Your task to perform on an android device: Open Youtube and go to the subscriptions tab Image 0: 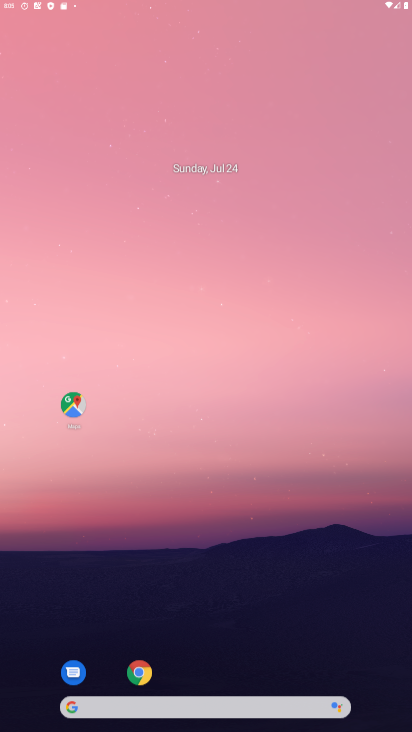
Step 0: click (241, 184)
Your task to perform on an android device: Open Youtube and go to the subscriptions tab Image 1: 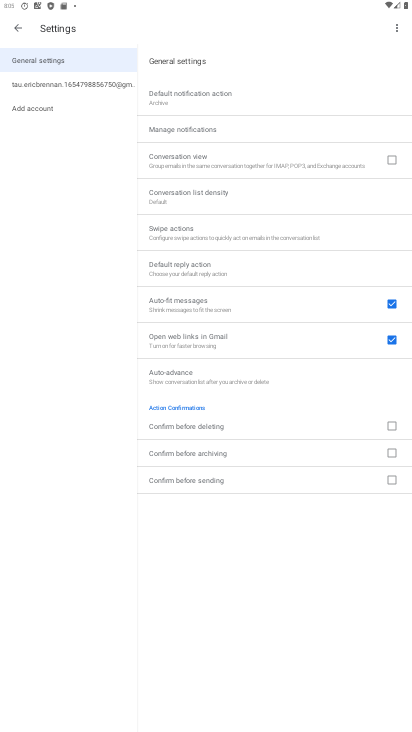
Step 1: drag from (188, 625) to (193, 118)
Your task to perform on an android device: Open Youtube and go to the subscriptions tab Image 2: 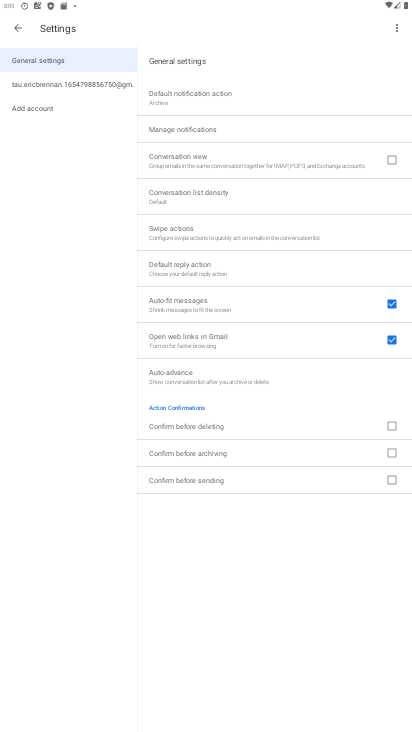
Step 2: press home button
Your task to perform on an android device: Open Youtube and go to the subscriptions tab Image 3: 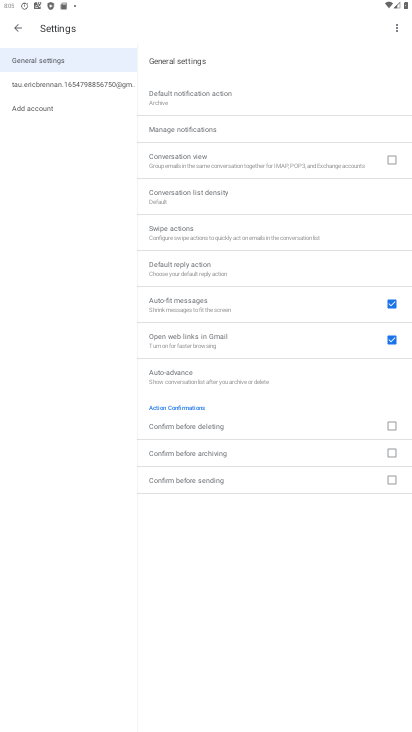
Step 3: press home button
Your task to perform on an android device: Open Youtube and go to the subscriptions tab Image 4: 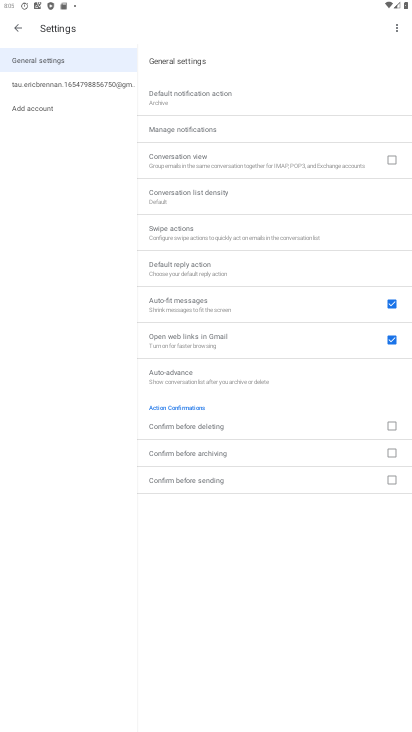
Step 4: drag from (190, 436) to (190, 350)
Your task to perform on an android device: Open Youtube and go to the subscriptions tab Image 5: 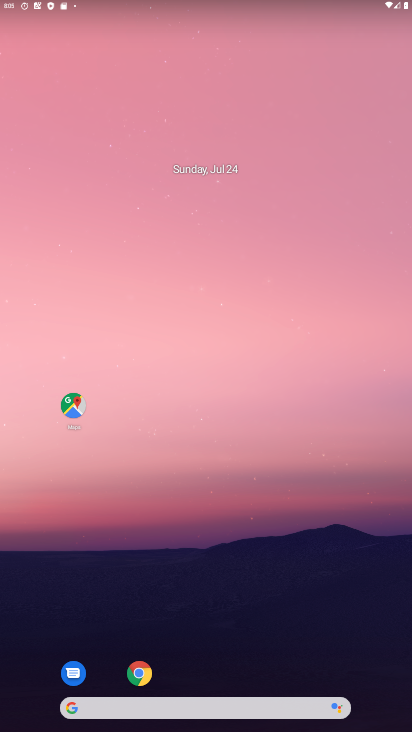
Step 5: drag from (187, 629) to (168, 16)
Your task to perform on an android device: Open Youtube and go to the subscriptions tab Image 6: 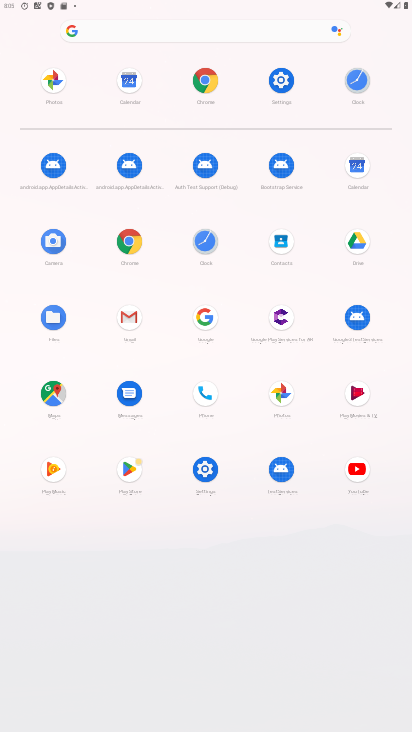
Step 6: click (345, 473)
Your task to perform on an android device: Open Youtube and go to the subscriptions tab Image 7: 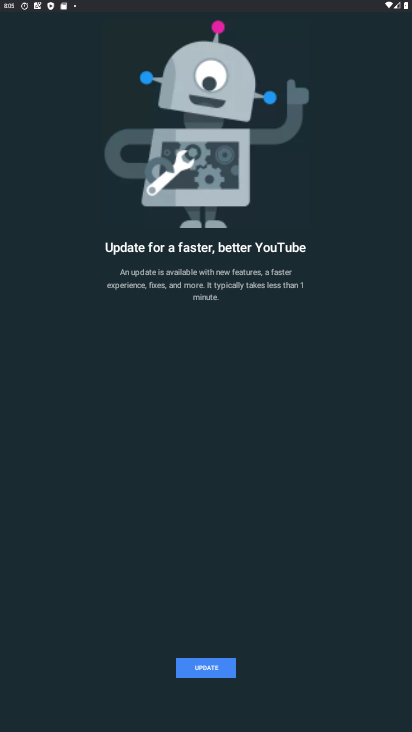
Step 7: task complete